Your task to perform on an android device: find photos in the google photos app Image 0: 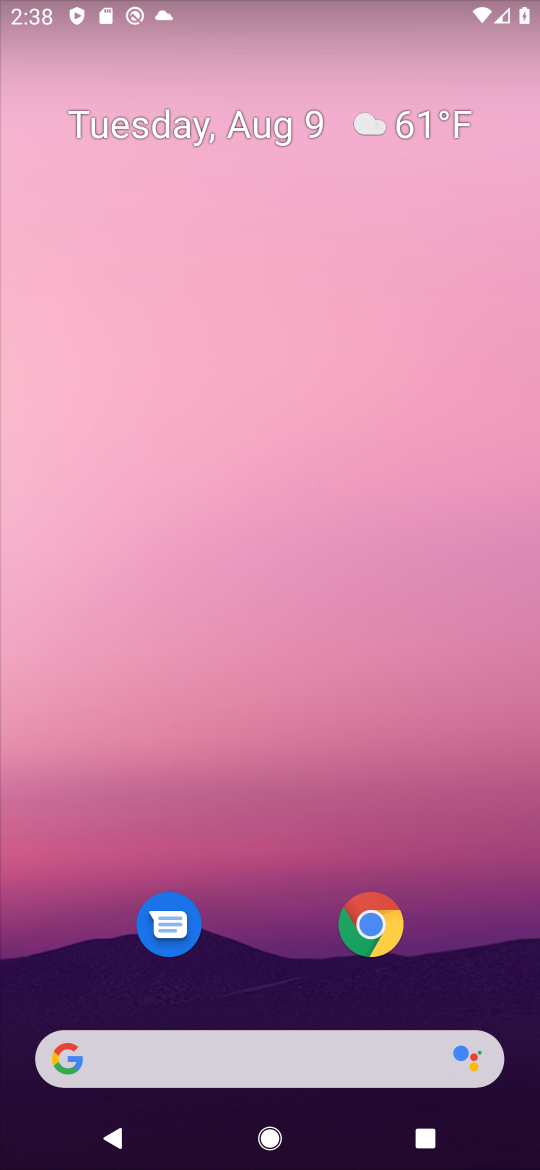
Step 0: drag from (277, 877) to (332, 30)
Your task to perform on an android device: find photos in the google photos app Image 1: 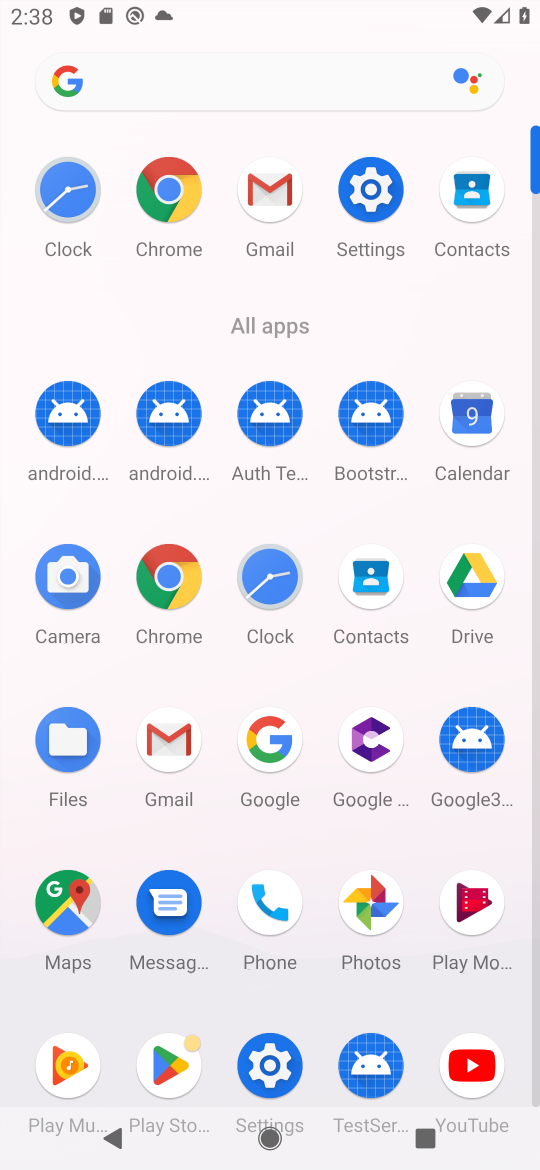
Step 1: click (376, 903)
Your task to perform on an android device: find photos in the google photos app Image 2: 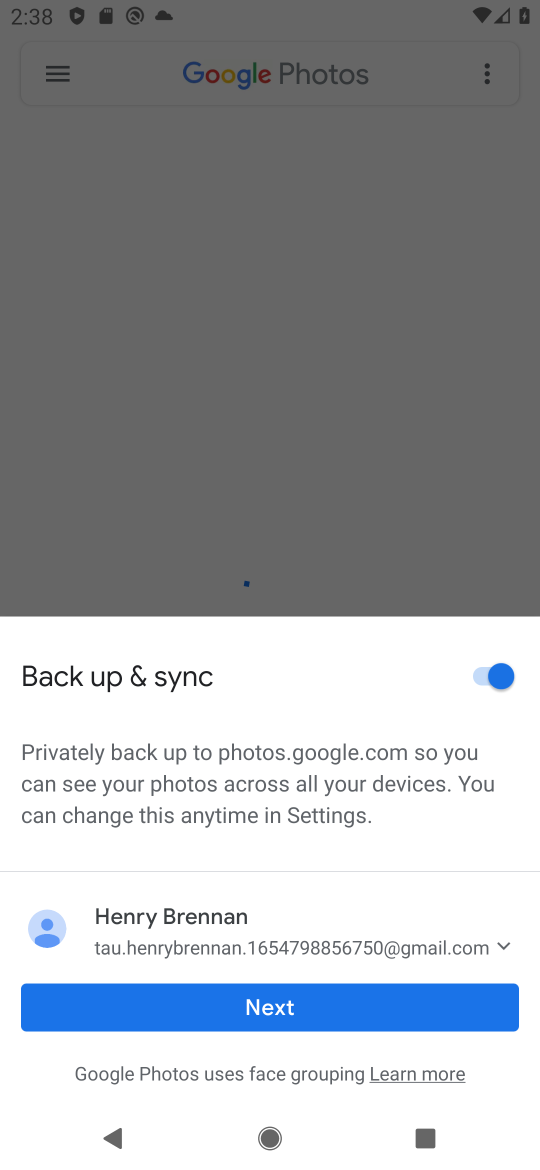
Step 2: click (387, 1005)
Your task to perform on an android device: find photos in the google photos app Image 3: 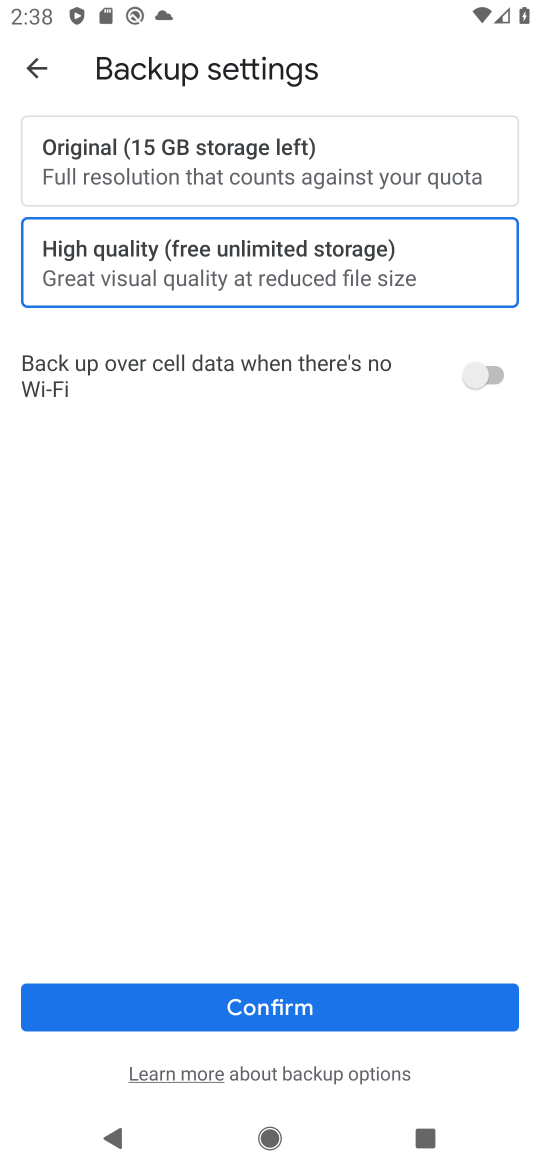
Step 3: click (387, 1005)
Your task to perform on an android device: find photos in the google photos app Image 4: 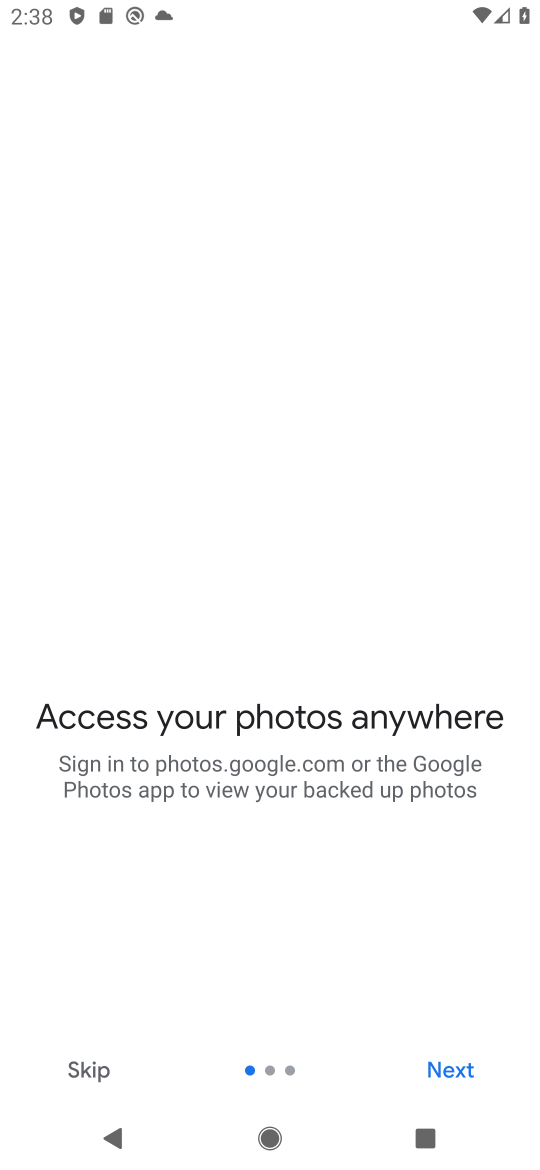
Step 4: click (448, 1071)
Your task to perform on an android device: find photos in the google photos app Image 5: 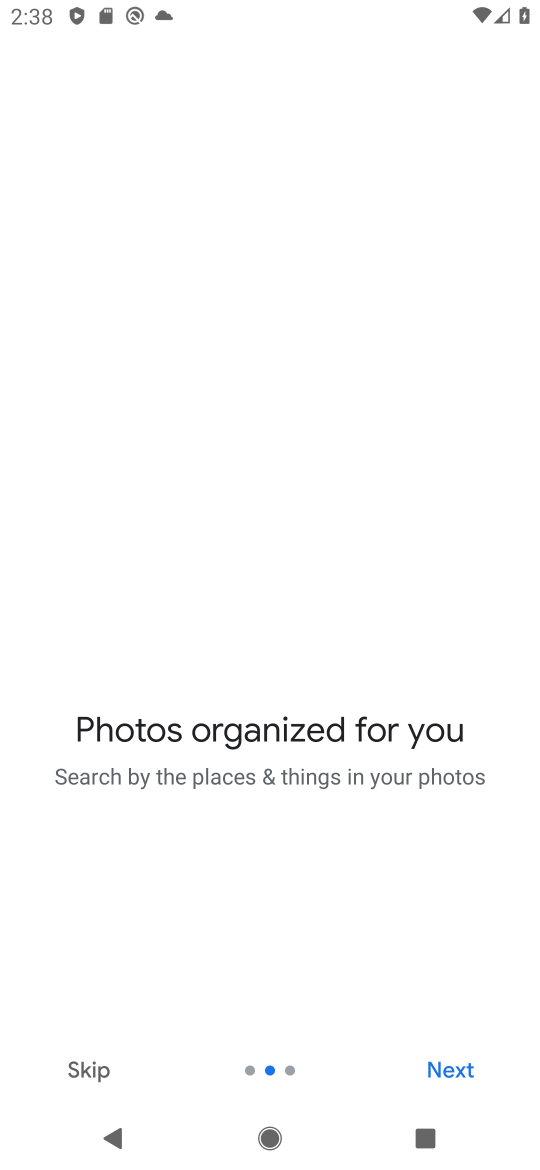
Step 5: click (448, 1069)
Your task to perform on an android device: find photos in the google photos app Image 6: 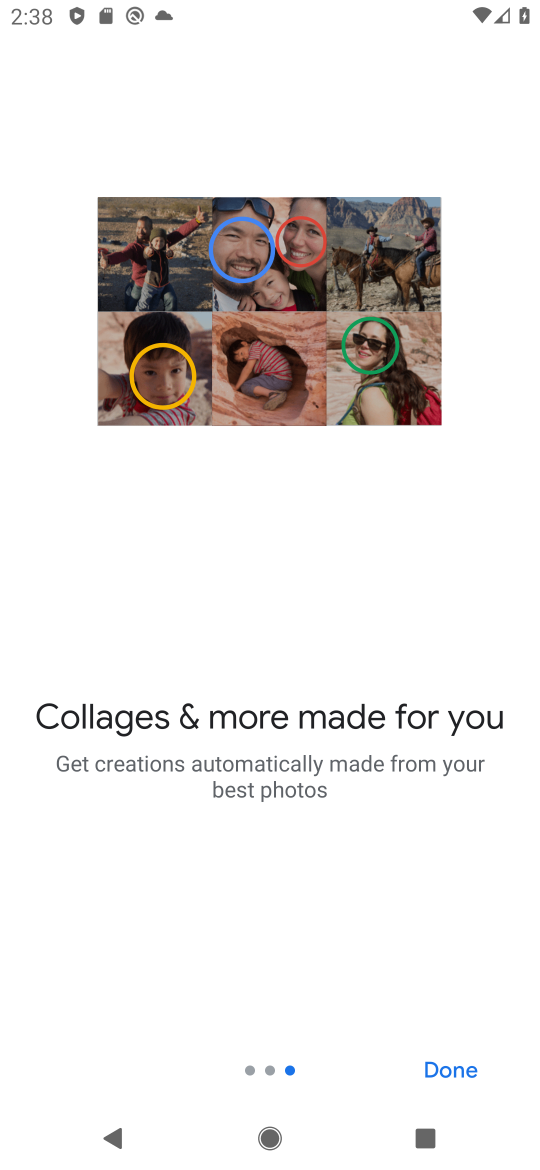
Step 6: click (448, 1069)
Your task to perform on an android device: find photos in the google photos app Image 7: 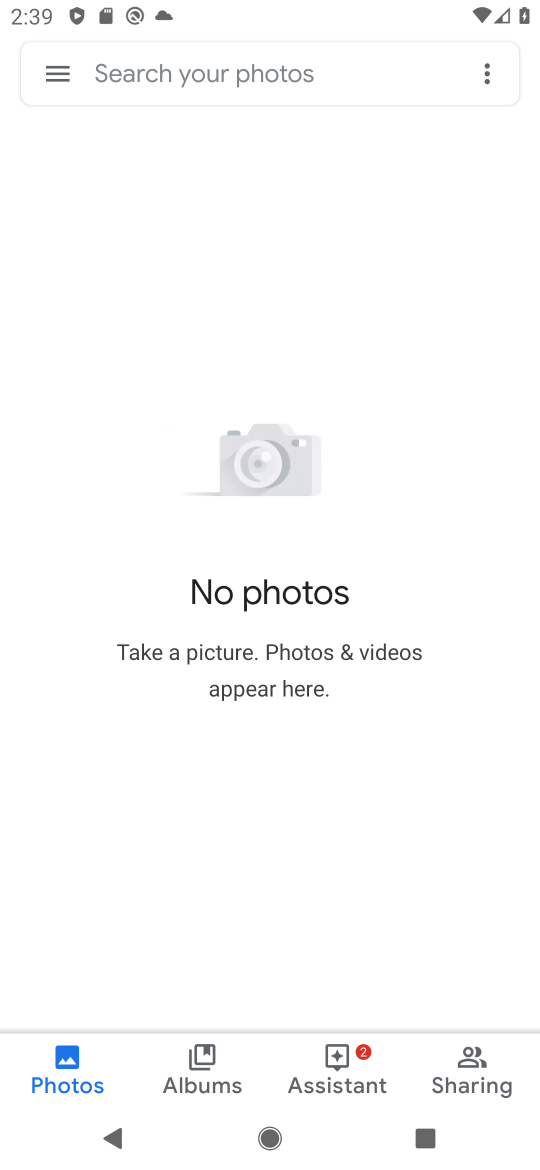
Step 7: task complete